Your task to perform on an android device: set the stopwatch Image 0: 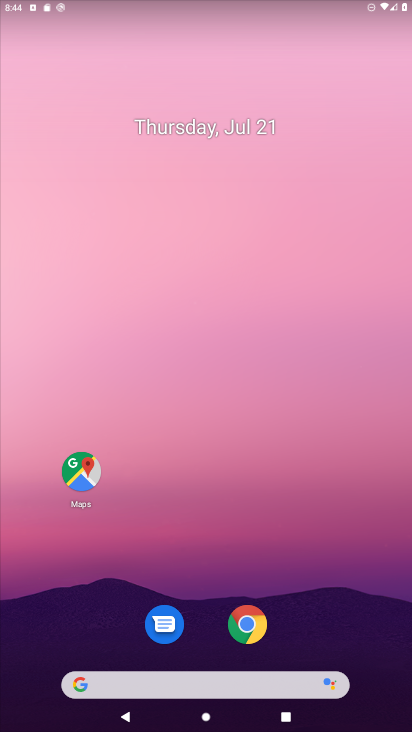
Step 0: drag from (10, 688) to (272, 142)
Your task to perform on an android device: set the stopwatch Image 1: 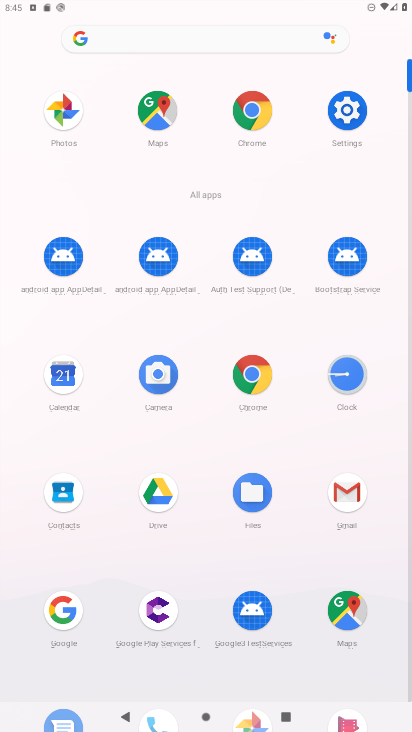
Step 1: drag from (189, 670) to (301, 179)
Your task to perform on an android device: set the stopwatch Image 2: 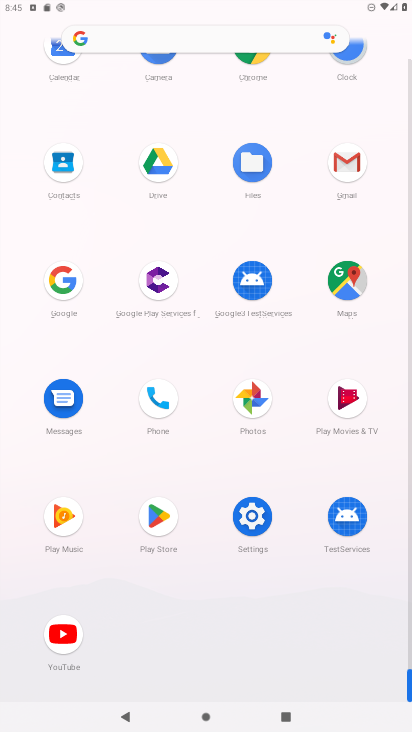
Step 2: drag from (315, 159) to (224, 670)
Your task to perform on an android device: set the stopwatch Image 3: 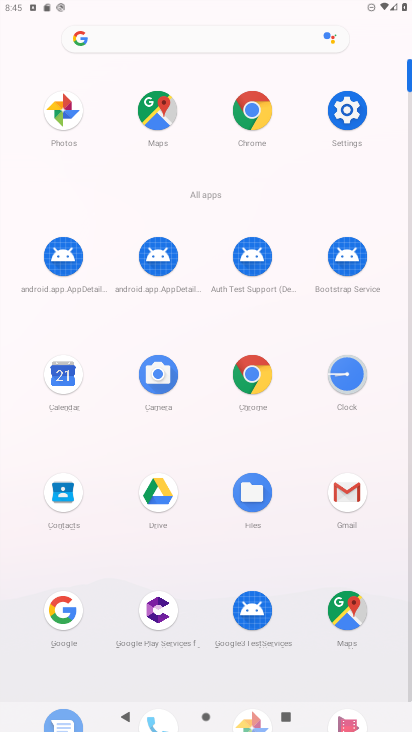
Step 3: drag from (199, 111) to (180, 520)
Your task to perform on an android device: set the stopwatch Image 4: 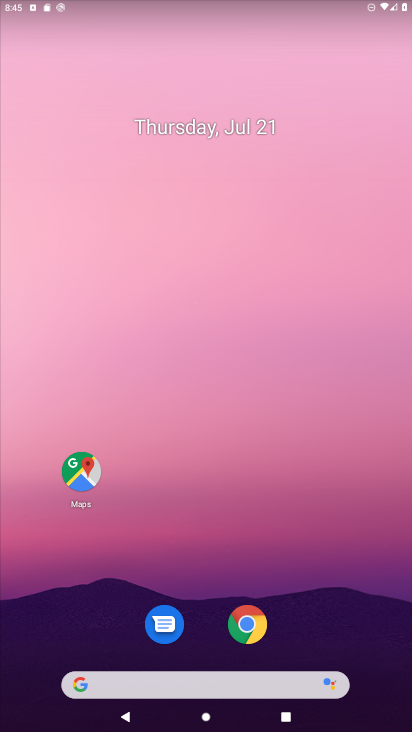
Step 4: drag from (236, 171) to (252, 129)
Your task to perform on an android device: set the stopwatch Image 5: 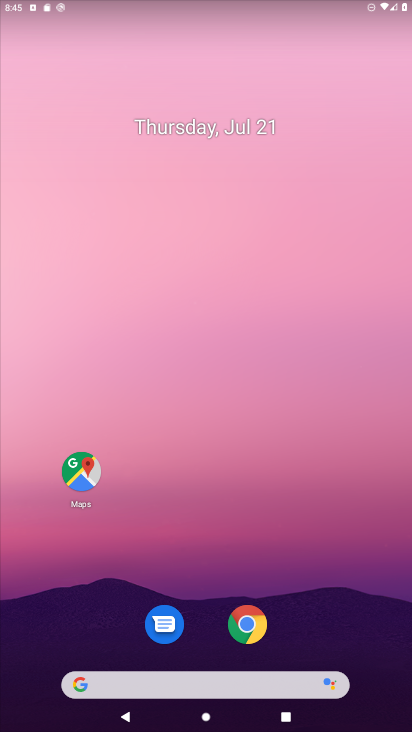
Step 5: drag from (17, 670) to (259, 136)
Your task to perform on an android device: set the stopwatch Image 6: 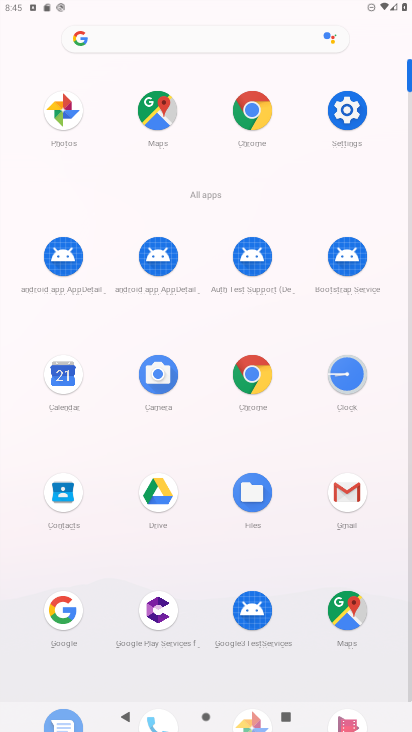
Step 6: click (351, 370)
Your task to perform on an android device: set the stopwatch Image 7: 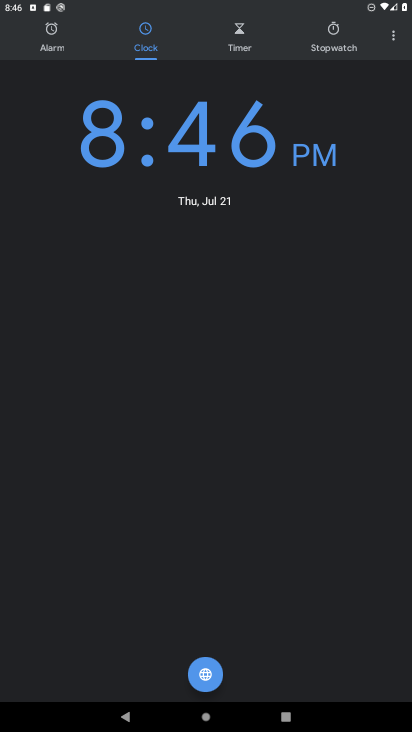
Step 7: click (330, 44)
Your task to perform on an android device: set the stopwatch Image 8: 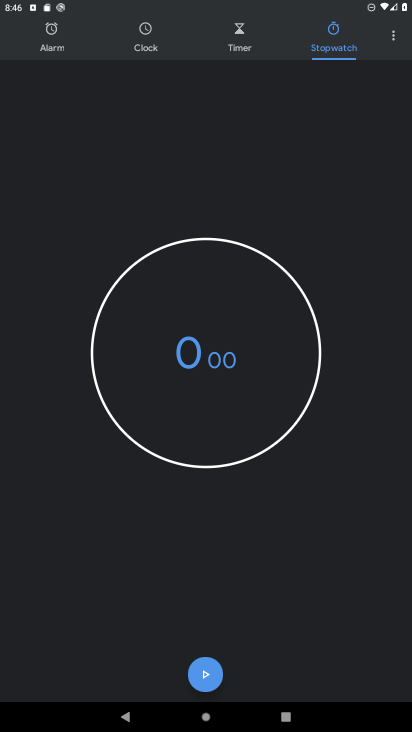
Step 8: click (208, 680)
Your task to perform on an android device: set the stopwatch Image 9: 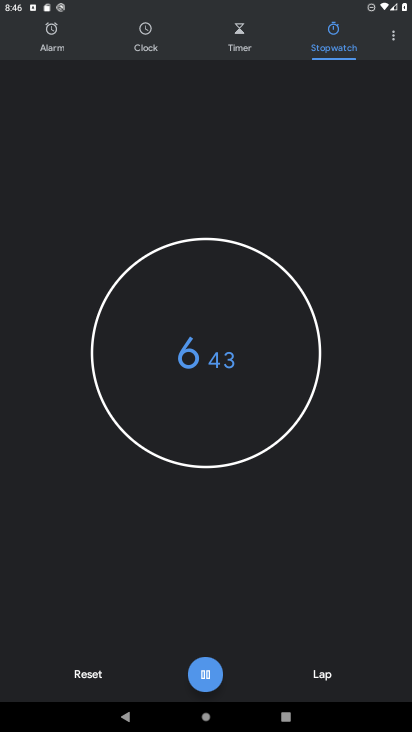
Step 9: task complete